Your task to perform on an android device: Go to CNN.com Image 0: 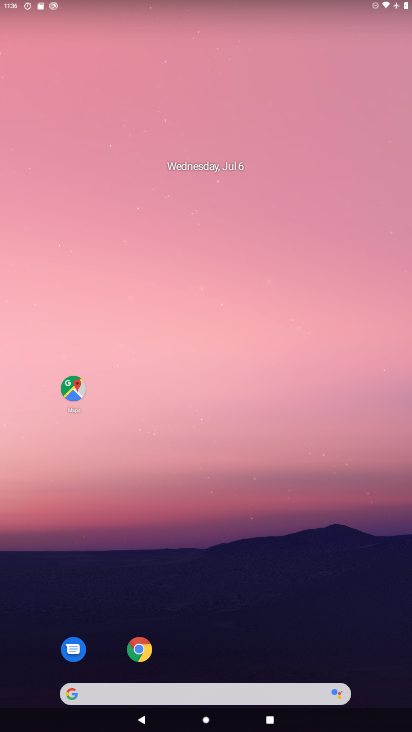
Step 0: click (132, 640)
Your task to perform on an android device: Go to CNN.com Image 1: 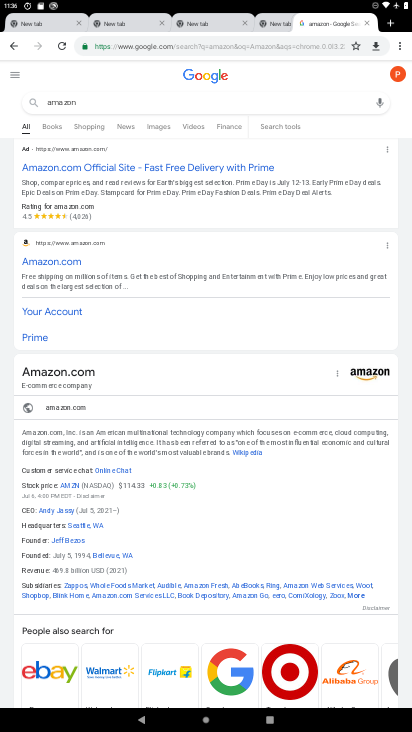
Step 1: click (345, 42)
Your task to perform on an android device: Go to CNN.com Image 2: 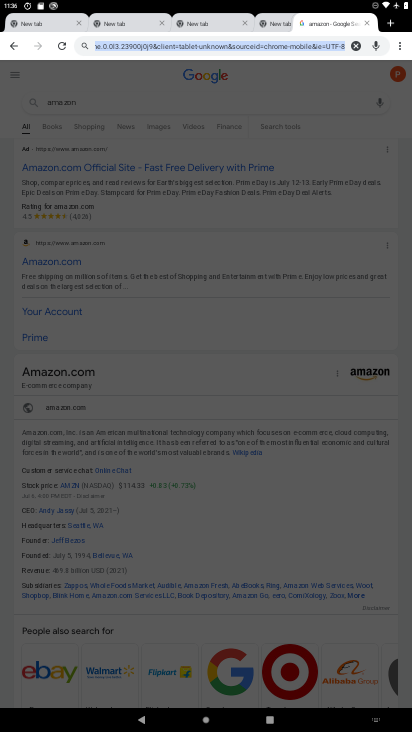
Step 2: click (356, 38)
Your task to perform on an android device: Go to CNN.com Image 3: 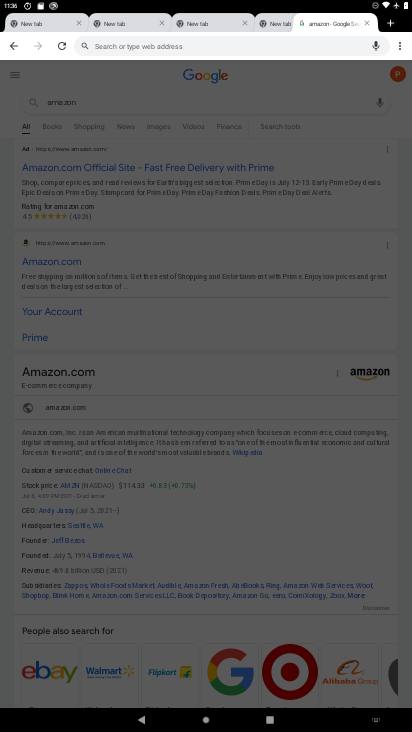
Step 3: type "CNN.com"
Your task to perform on an android device: Go to CNN.com Image 4: 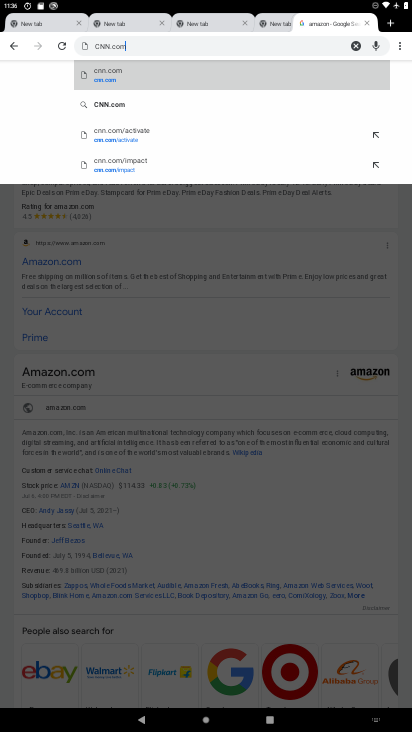
Step 4: click (109, 105)
Your task to perform on an android device: Go to CNN.com Image 5: 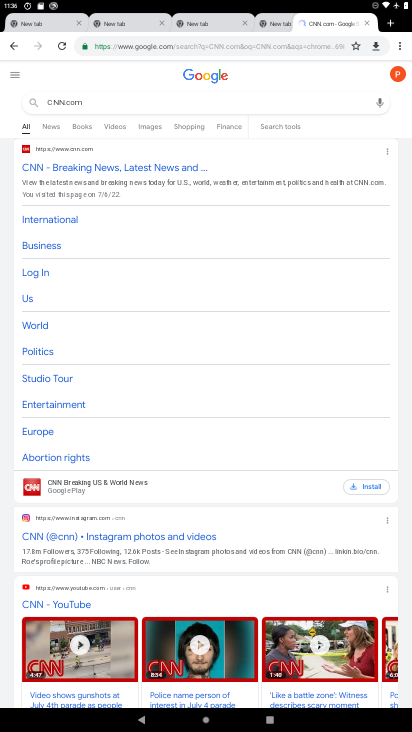
Step 5: task complete